Your task to perform on an android device: Go to Amazon Image 0: 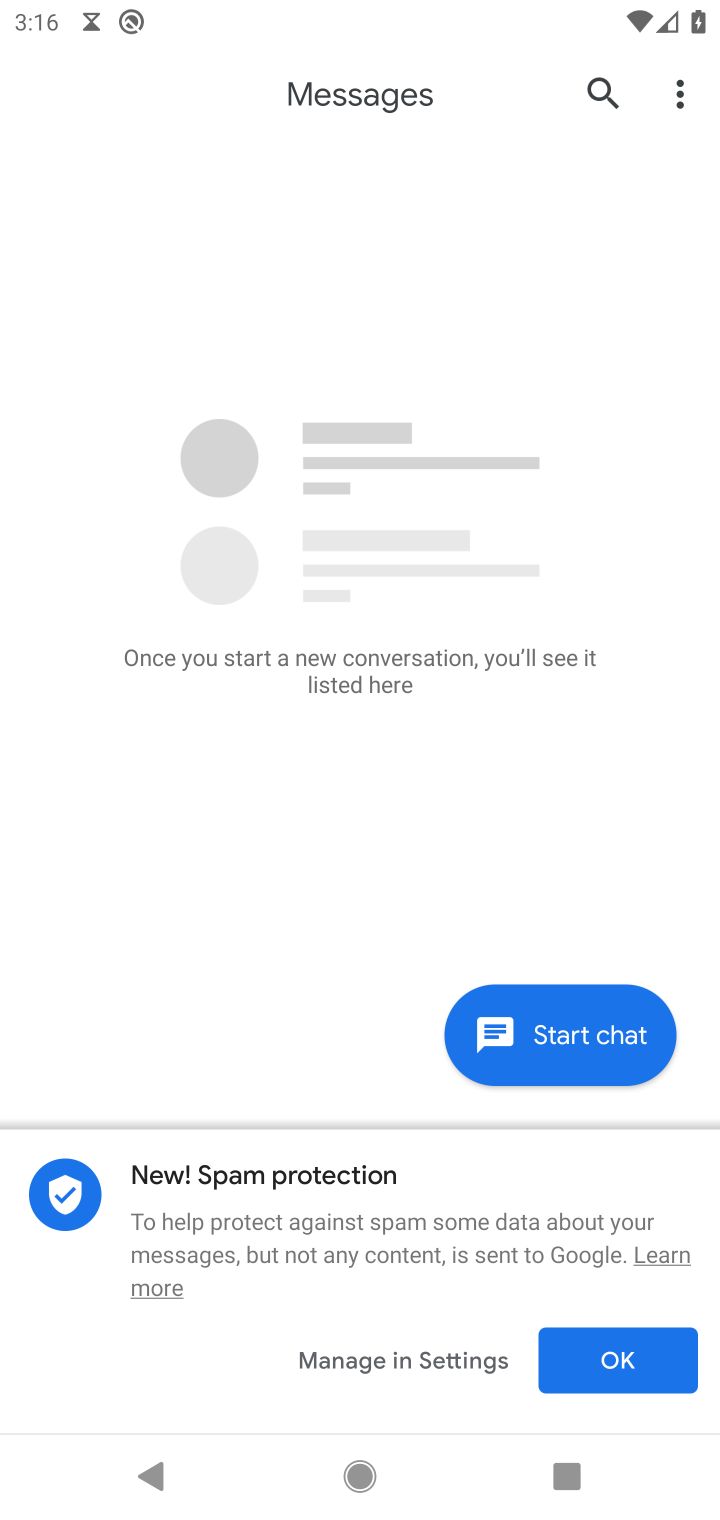
Step 0: press home button
Your task to perform on an android device: Go to Amazon Image 1: 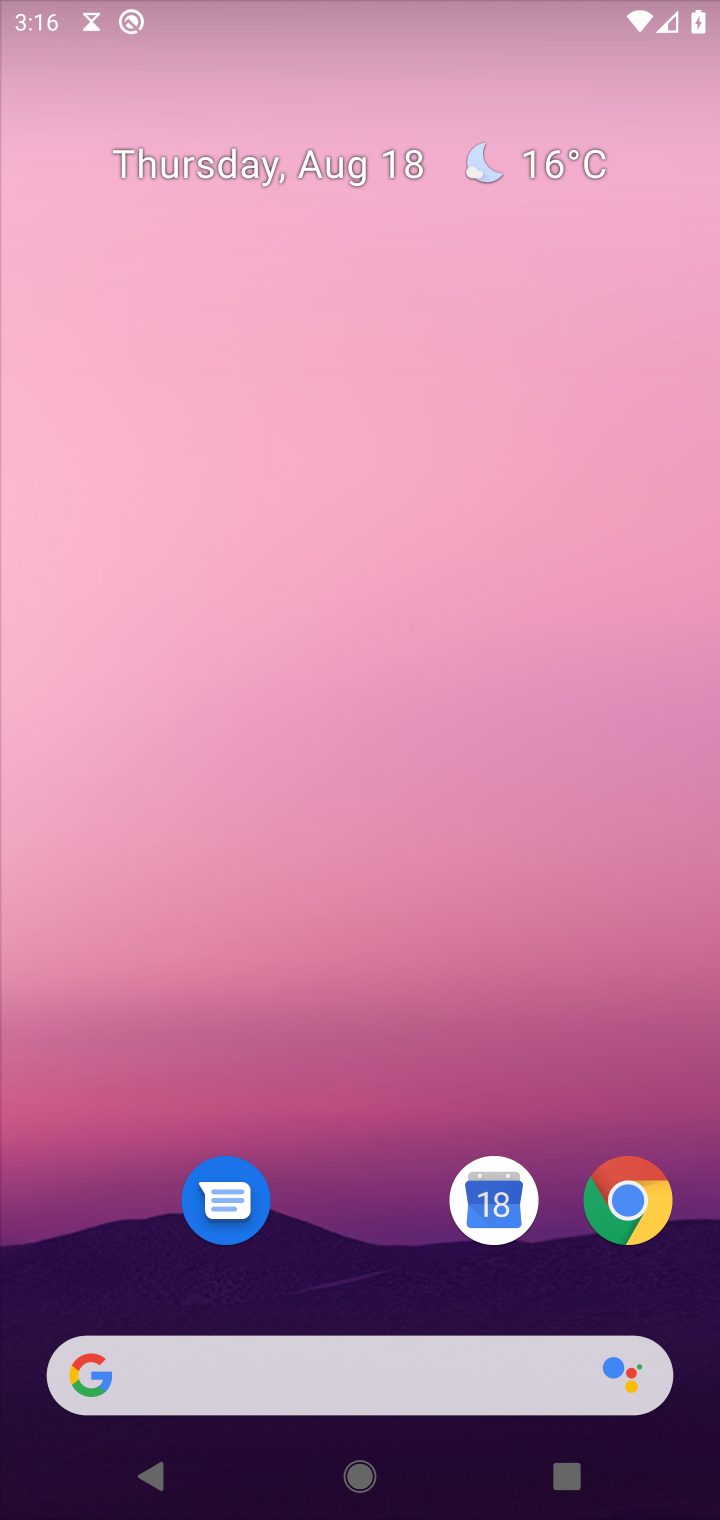
Step 1: drag from (337, 1174) to (338, 79)
Your task to perform on an android device: Go to Amazon Image 2: 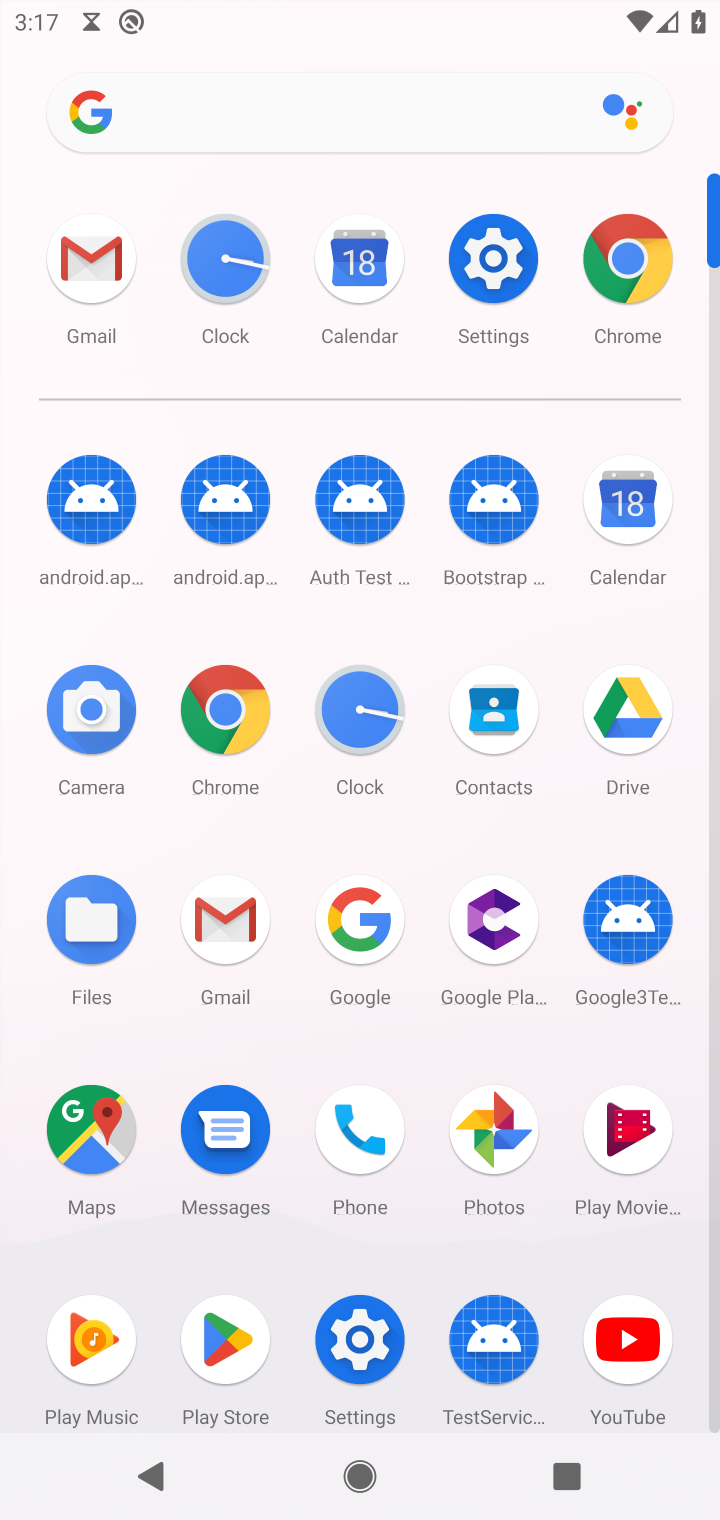
Step 2: click (231, 673)
Your task to perform on an android device: Go to Amazon Image 3: 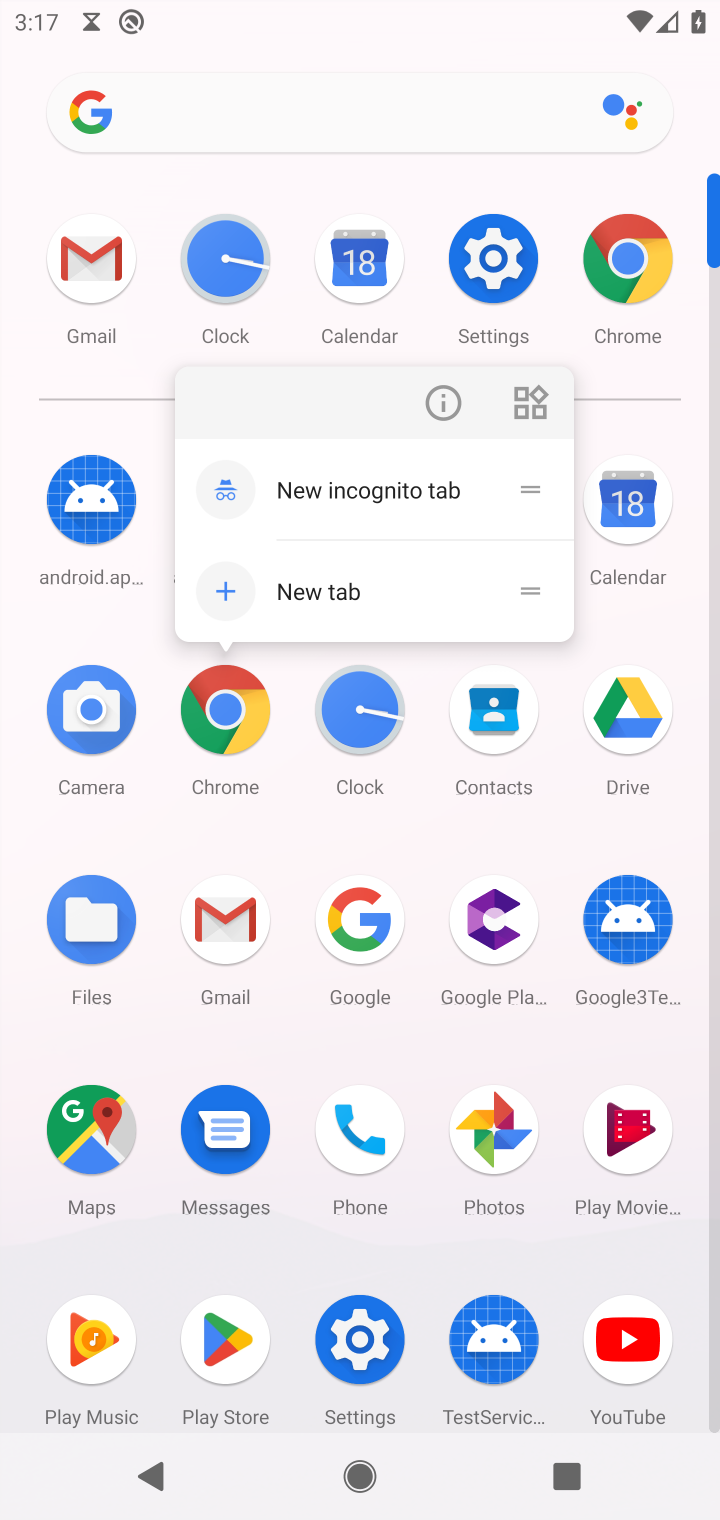
Step 3: click (224, 693)
Your task to perform on an android device: Go to Amazon Image 4: 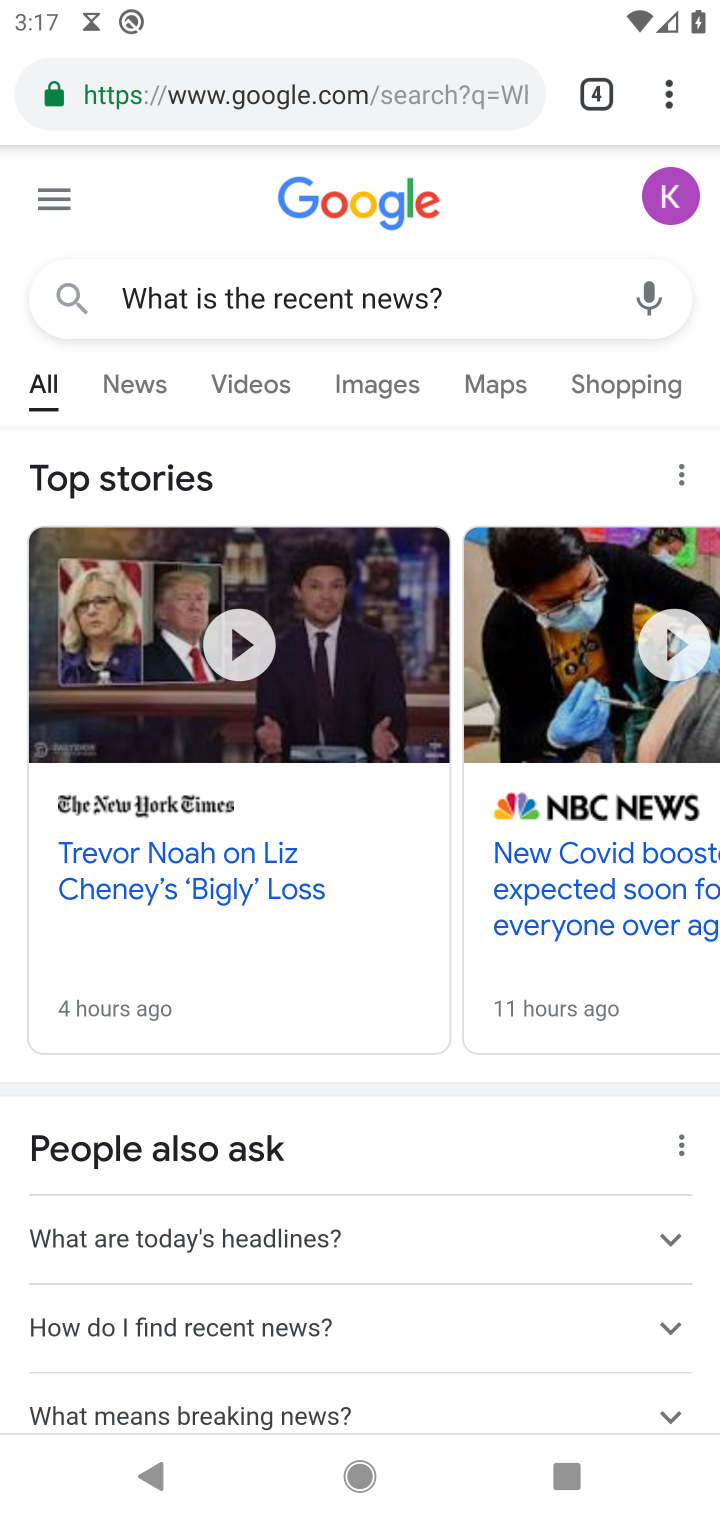
Step 4: drag from (662, 85) to (287, 195)
Your task to perform on an android device: Go to Amazon Image 5: 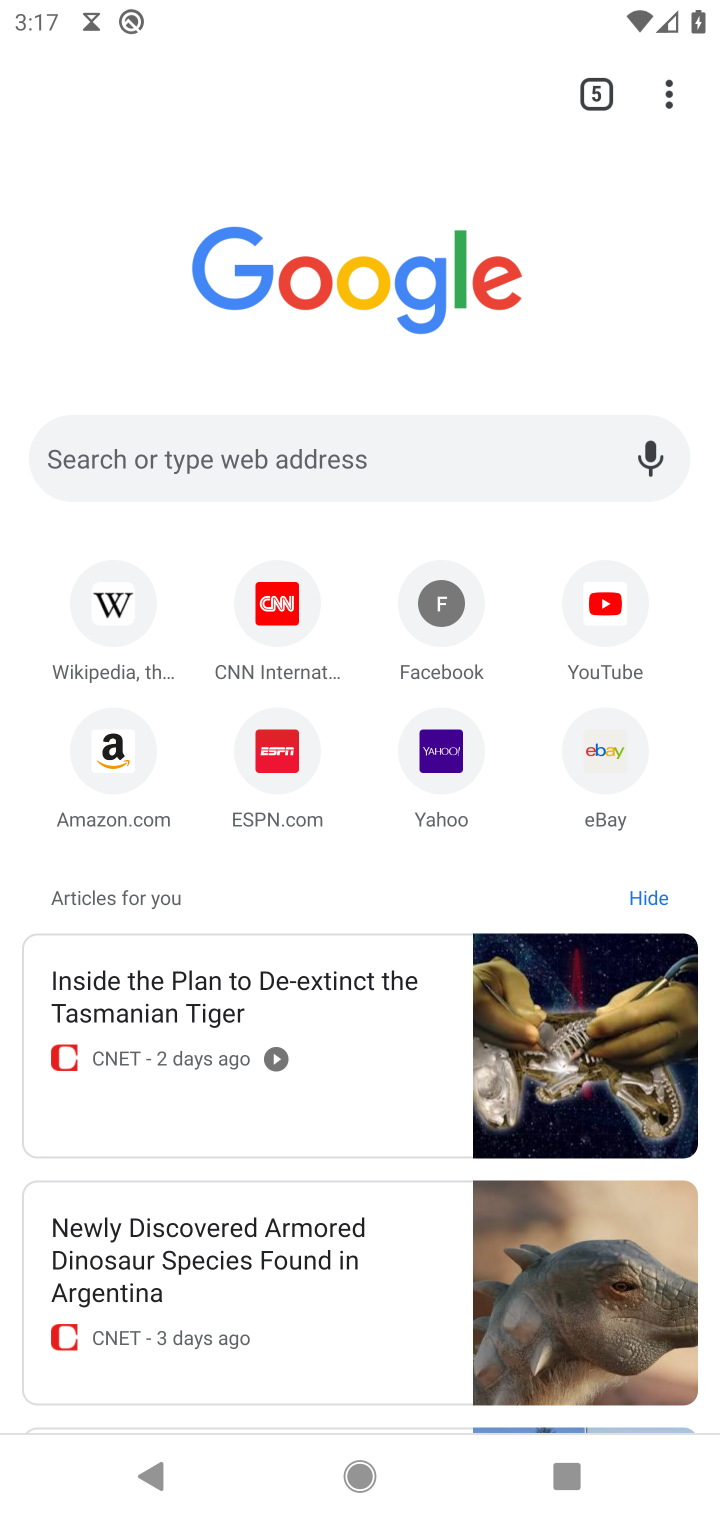
Step 5: click (96, 765)
Your task to perform on an android device: Go to Amazon Image 6: 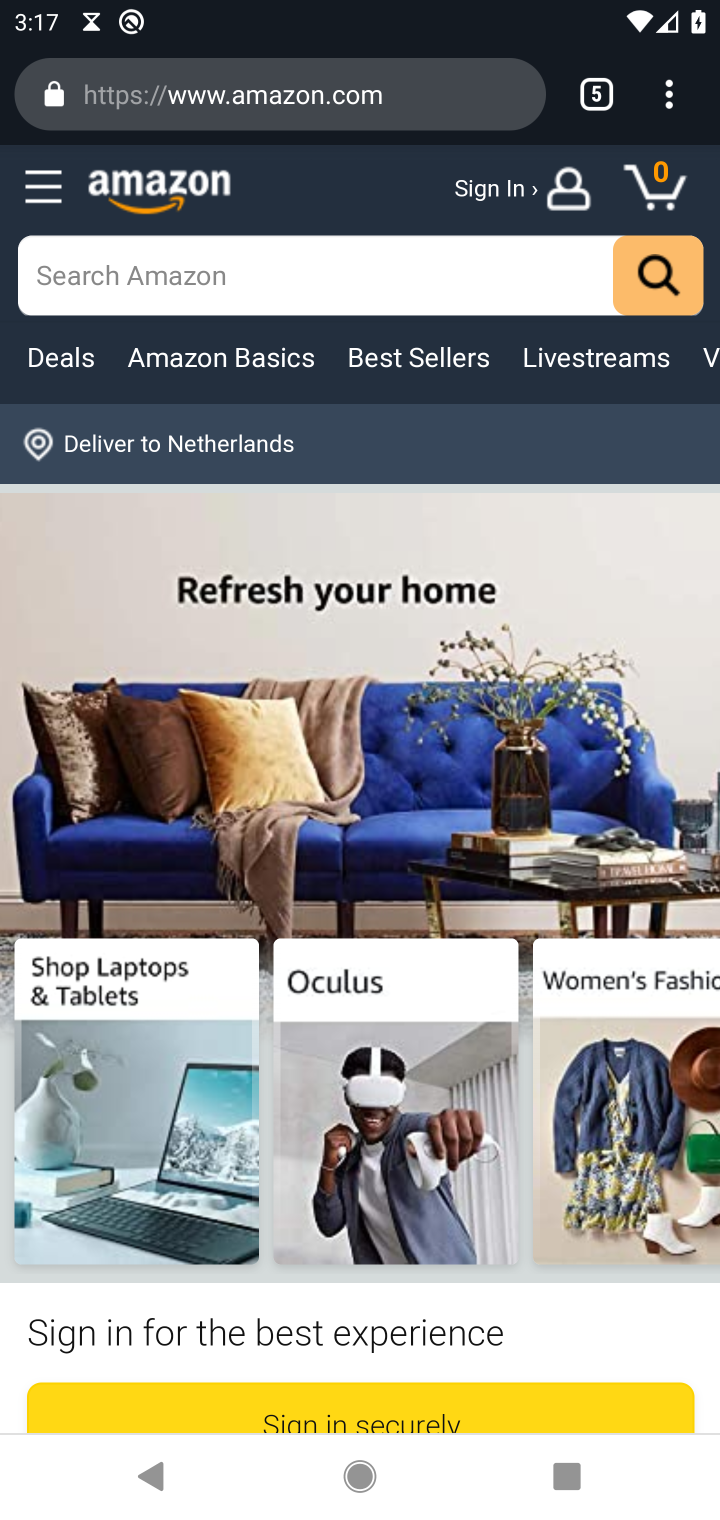
Step 6: task complete